Your task to perform on an android device: Open settings on Google Maps Image 0: 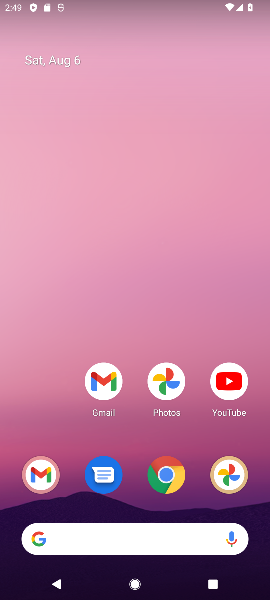
Step 0: drag from (16, 562) to (82, 362)
Your task to perform on an android device: Open settings on Google Maps Image 1: 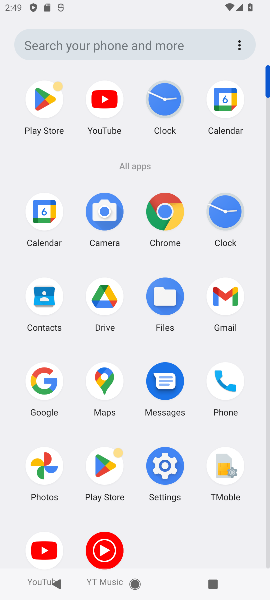
Step 1: click (102, 380)
Your task to perform on an android device: Open settings on Google Maps Image 2: 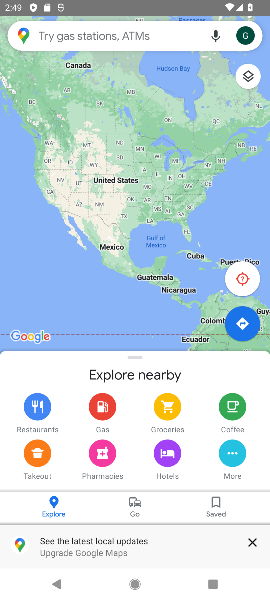
Step 2: click (73, 24)
Your task to perform on an android device: Open settings on Google Maps Image 3: 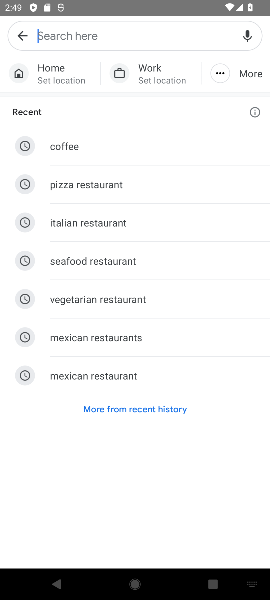
Step 3: click (23, 38)
Your task to perform on an android device: Open settings on Google Maps Image 4: 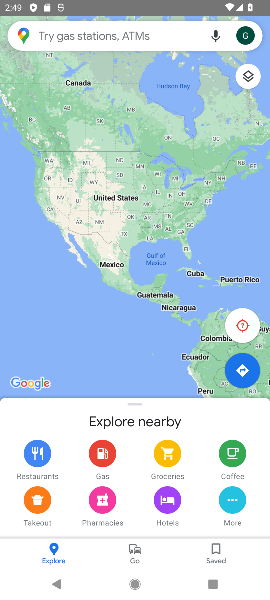
Step 4: click (58, 41)
Your task to perform on an android device: Open settings on Google Maps Image 5: 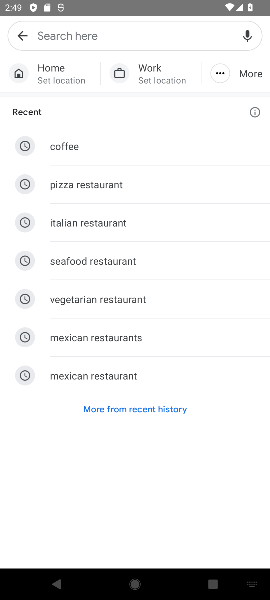
Step 5: task complete